Your task to perform on an android device: see creations saved in the google photos Image 0: 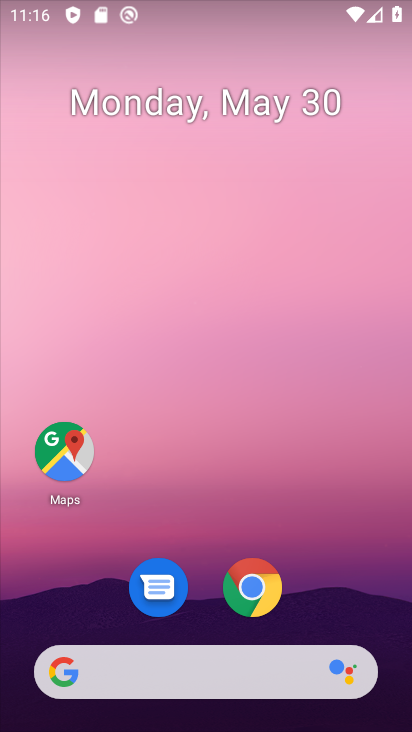
Step 0: drag from (180, 632) to (213, 64)
Your task to perform on an android device: see creations saved in the google photos Image 1: 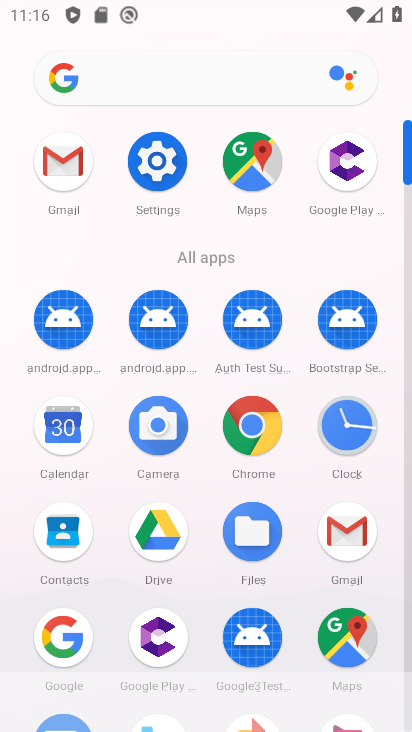
Step 1: drag from (191, 656) to (230, 185)
Your task to perform on an android device: see creations saved in the google photos Image 2: 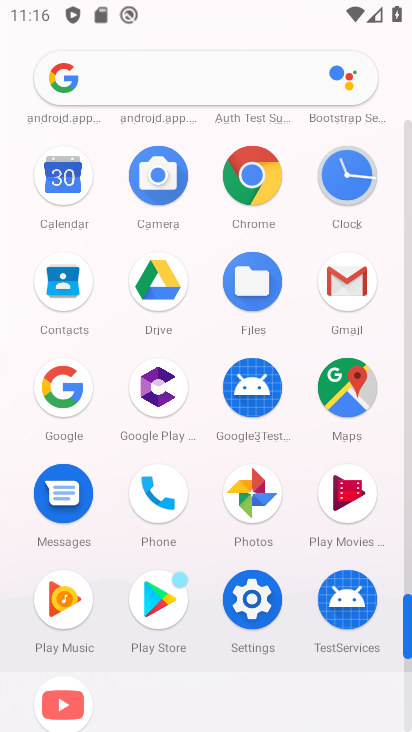
Step 2: click (216, 488)
Your task to perform on an android device: see creations saved in the google photos Image 3: 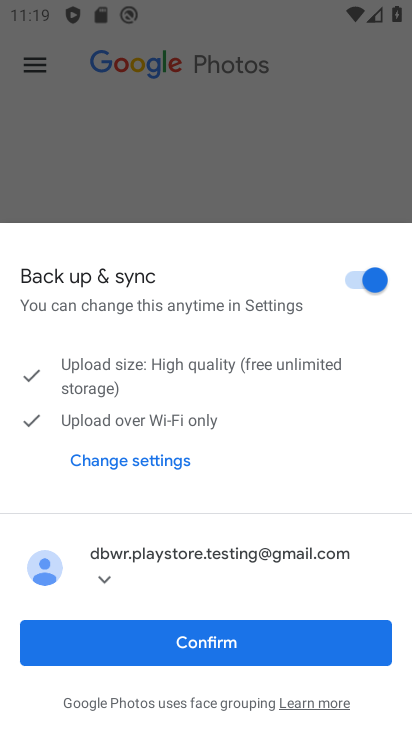
Step 3: task complete